Your task to perform on an android device: Open calendar and show me the fourth week of next month Image 0: 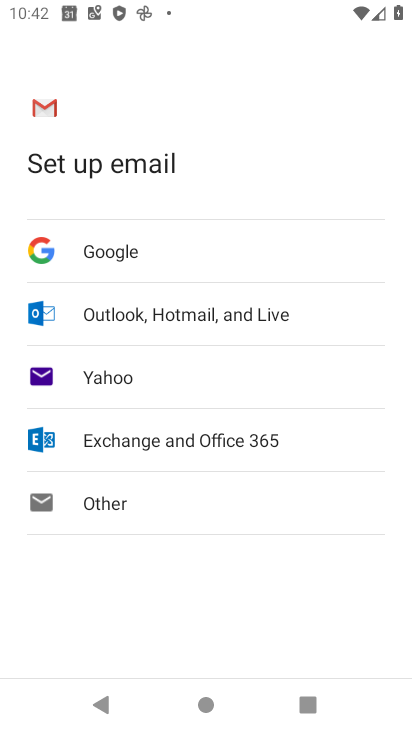
Step 0: press home button
Your task to perform on an android device: Open calendar and show me the fourth week of next month Image 1: 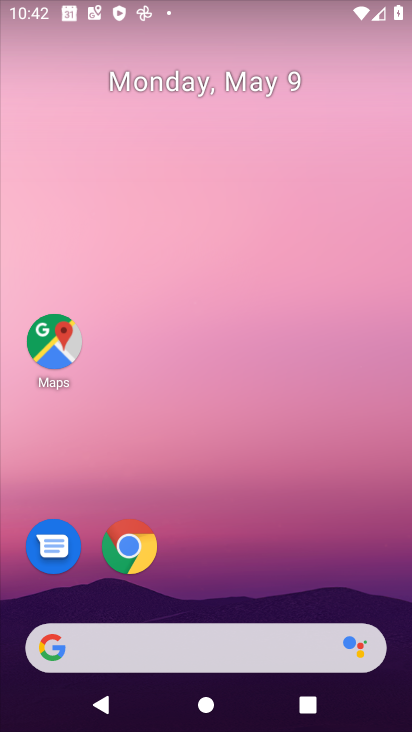
Step 1: drag from (234, 629) to (245, 208)
Your task to perform on an android device: Open calendar and show me the fourth week of next month Image 2: 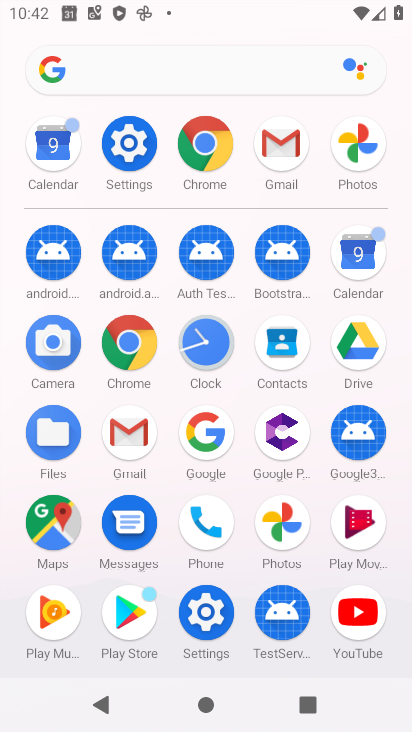
Step 2: click (363, 248)
Your task to perform on an android device: Open calendar and show me the fourth week of next month Image 3: 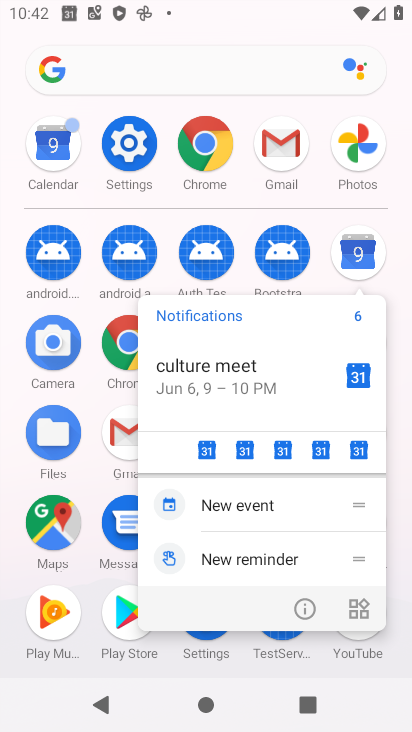
Step 3: click (357, 263)
Your task to perform on an android device: Open calendar and show me the fourth week of next month Image 4: 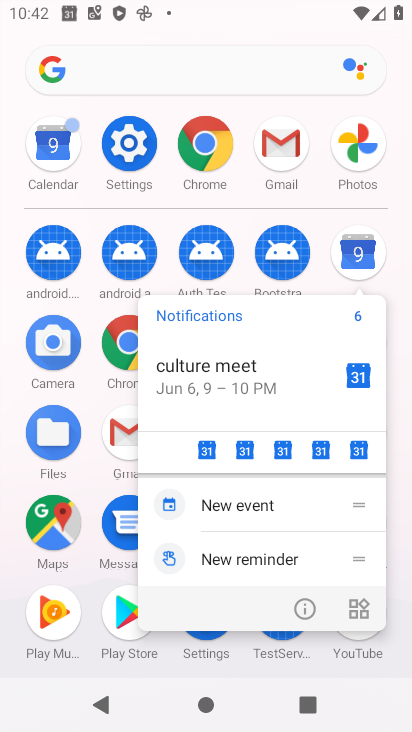
Step 4: click (357, 263)
Your task to perform on an android device: Open calendar and show me the fourth week of next month Image 5: 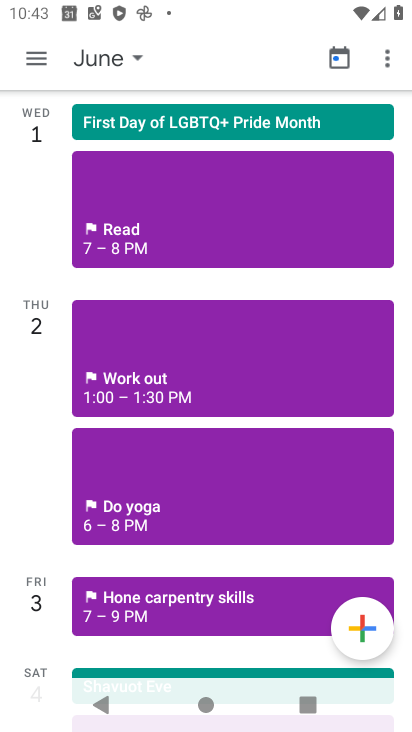
Step 5: click (93, 57)
Your task to perform on an android device: Open calendar and show me the fourth week of next month Image 6: 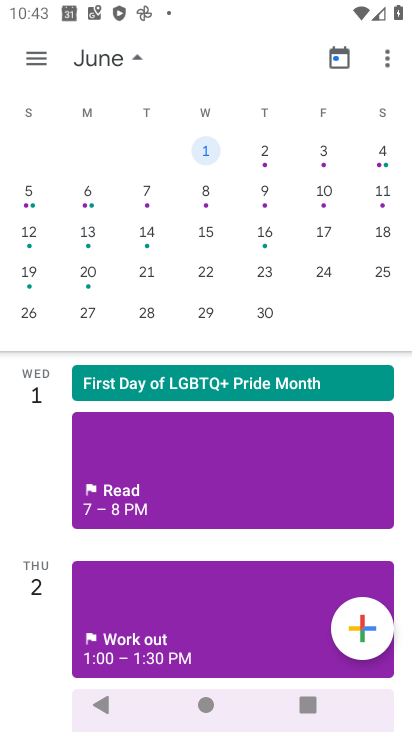
Step 6: click (25, 271)
Your task to perform on an android device: Open calendar and show me the fourth week of next month Image 7: 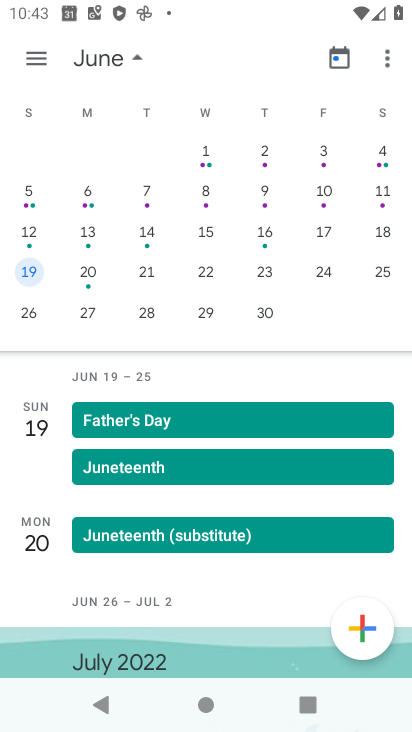
Step 7: task complete